Your task to perform on an android device: Open settings Image 0: 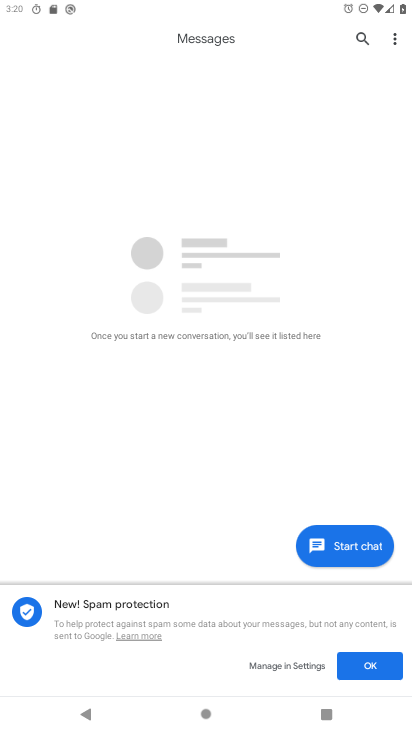
Step 0: press home button
Your task to perform on an android device: Open settings Image 1: 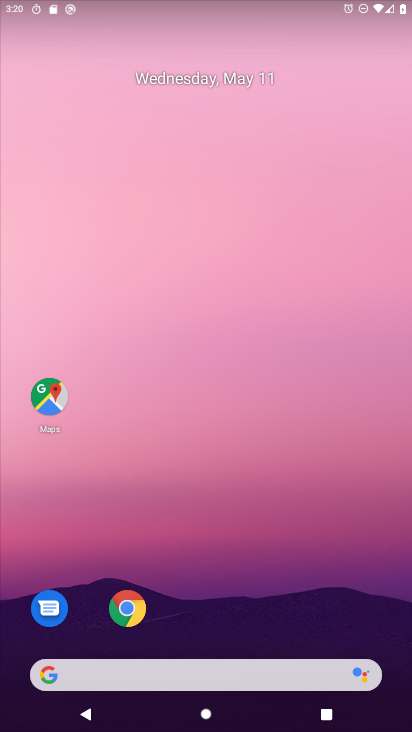
Step 1: drag from (237, 528) to (305, 84)
Your task to perform on an android device: Open settings Image 2: 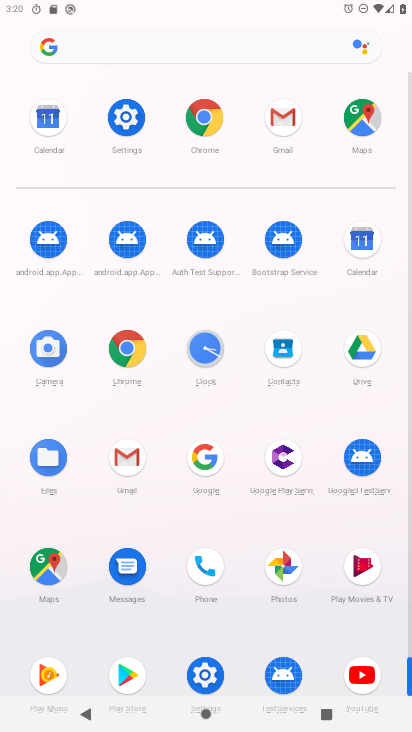
Step 2: click (209, 671)
Your task to perform on an android device: Open settings Image 3: 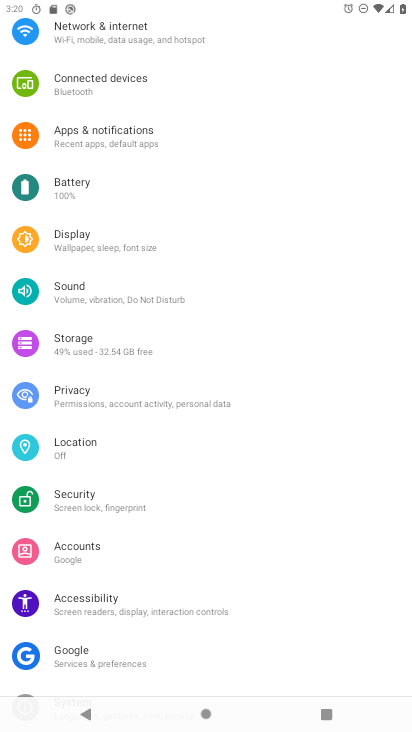
Step 3: task complete